Your task to perform on an android device: turn off notifications settings in the gmail app Image 0: 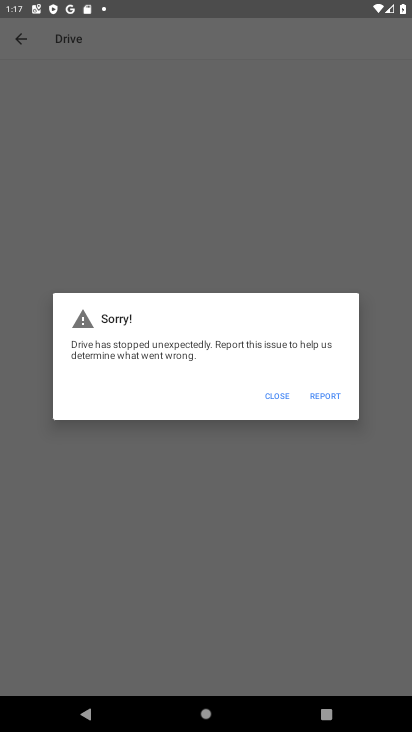
Step 0: press home button
Your task to perform on an android device: turn off notifications settings in the gmail app Image 1: 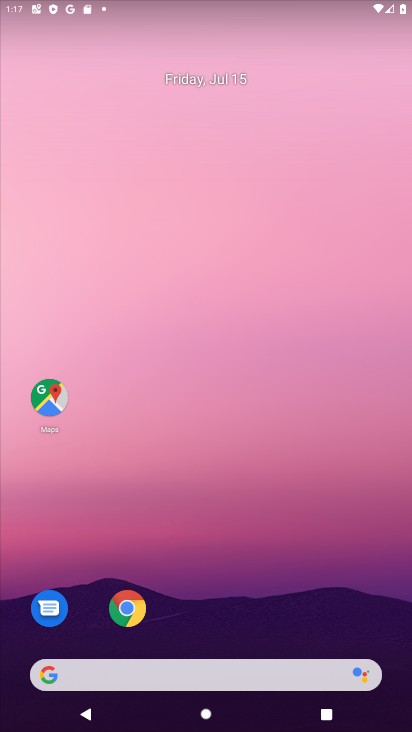
Step 1: drag from (259, 694) to (279, 110)
Your task to perform on an android device: turn off notifications settings in the gmail app Image 2: 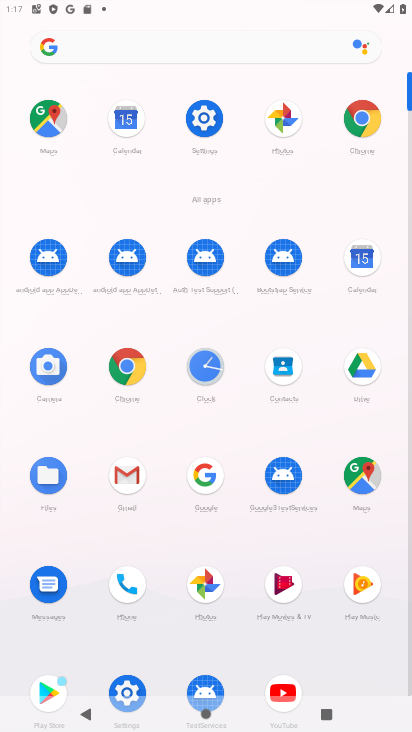
Step 2: click (121, 476)
Your task to perform on an android device: turn off notifications settings in the gmail app Image 3: 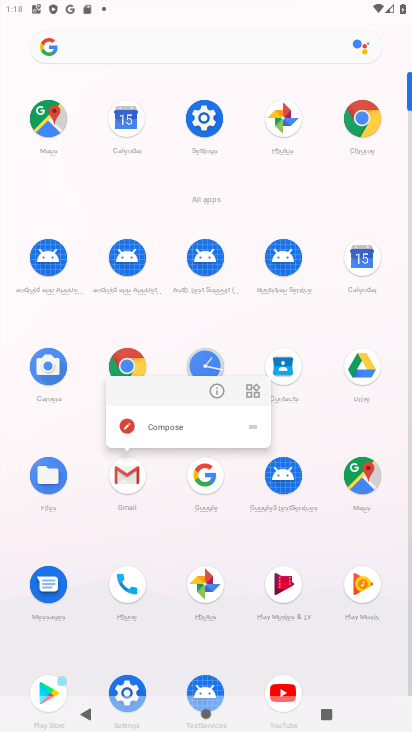
Step 3: click (216, 386)
Your task to perform on an android device: turn off notifications settings in the gmail app Image 4: 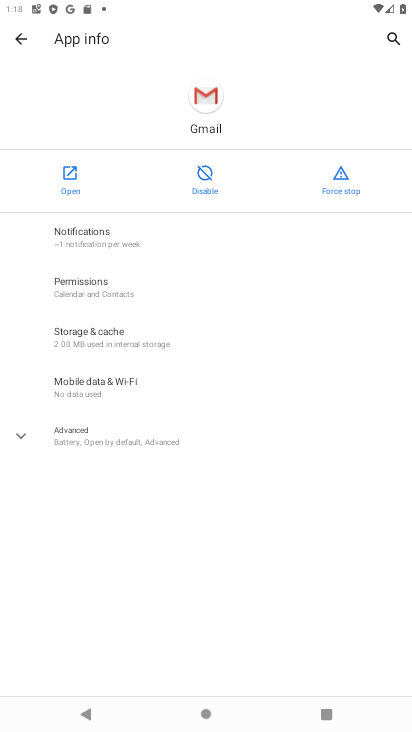
Step 4: click (183, 232)
Your task to perform on an android device: turn off notifications settings in the gmail app Image 5: 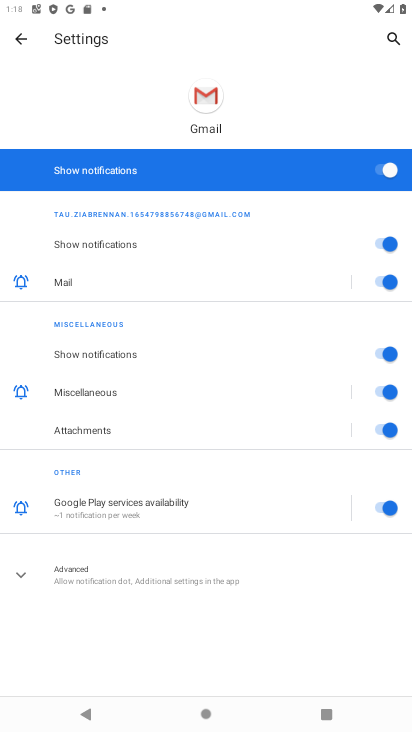
Step 5: click (382, 171)
Your task to perform on an android device: turn off notifications settings in the gmail app Image 6: 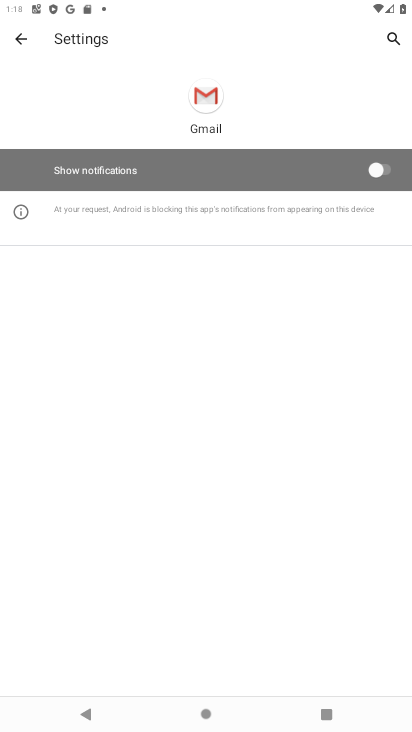
Step 6: task complete